Your task to perform on an android device: Open Chrome and go to settings Image 0: 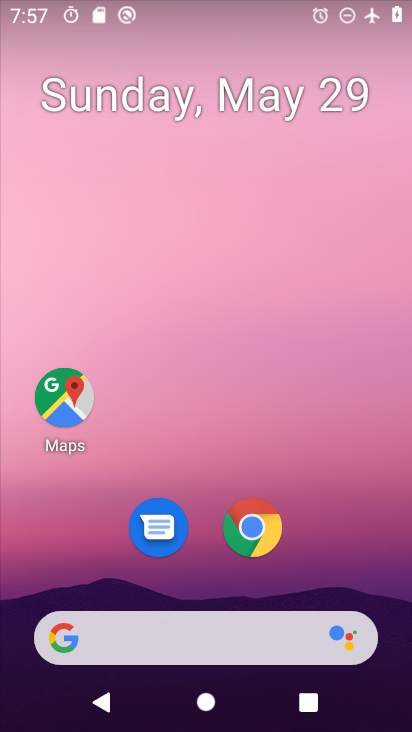
Step 0: drag from (391, 620) to (320, 116)
Your task to perform on an android device: Open Chrome and go to settings Image 1: 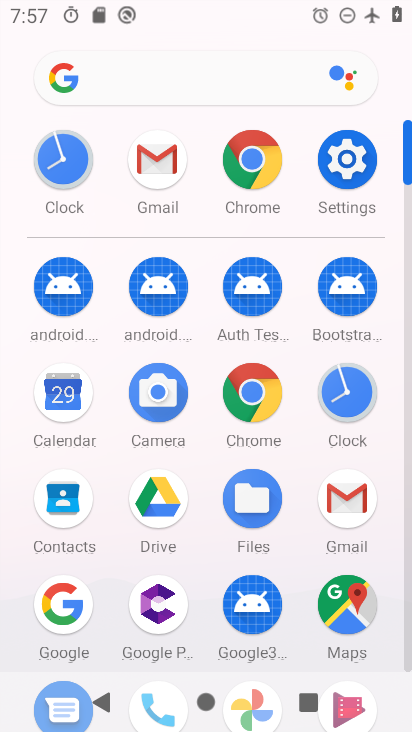
Step 1: click (270, 365)
Your task to perform on an android device: Open Chrome and go to settings Image 2: 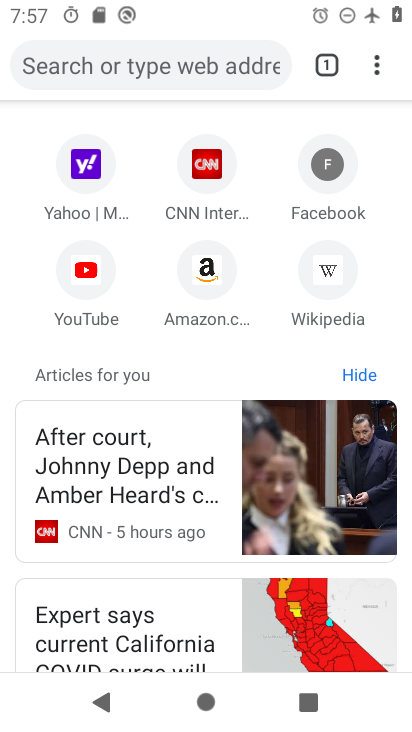
Step 2: click (379, 60)
Your task to perform on an android device: Open Chrome and go to settings Image 3: 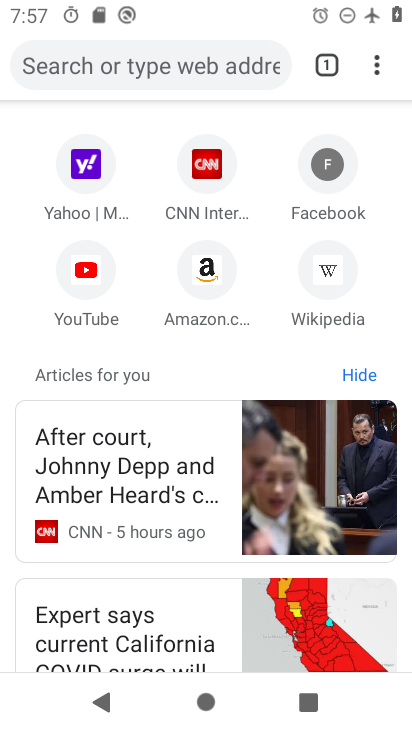
Step 3: click (376, 60)
Your task to perform on an android device: Open Chrome and go to settings Image 4: 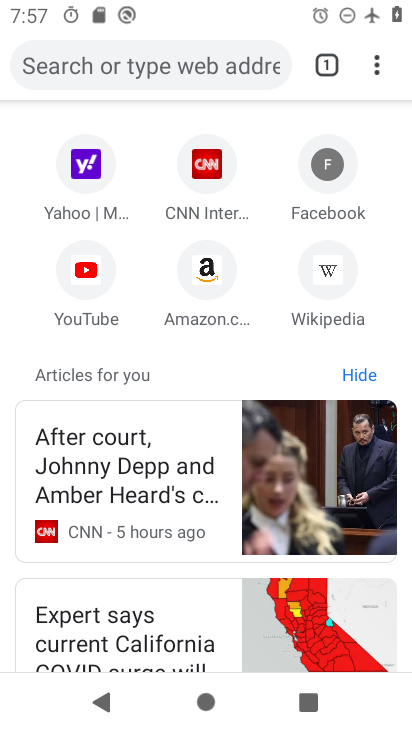
Step 4: click (376, 60)
Your task to perform on an android device: Open Chrome and go to settings Image 5: 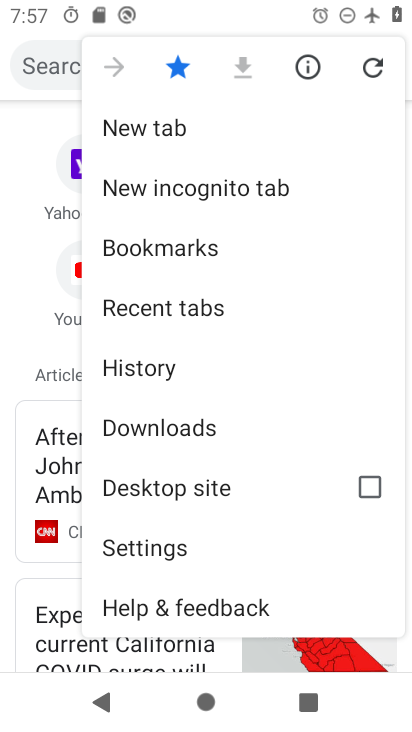
Step 5: click (183, 559)
Your task to perform on an android device: Open Chrome and go to settings Image 6: 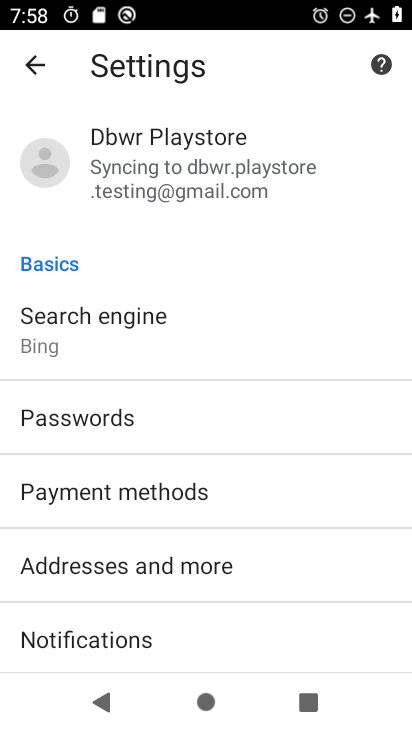
Step 6: task complete